Your task to perform on an android device: When is my next meeting? Image 0: 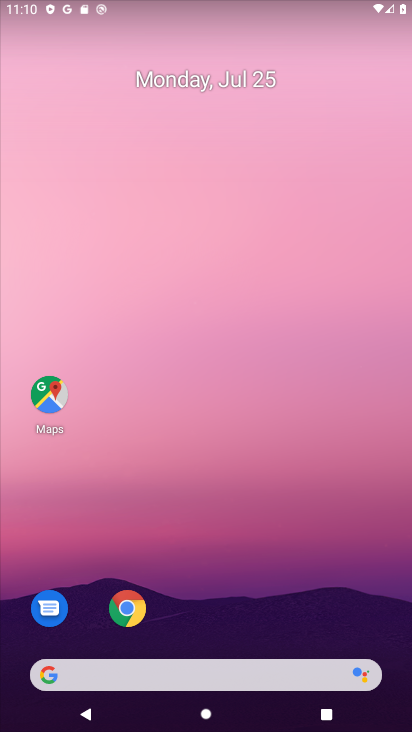
Step 0: click (175, 78)
Your task to perform on an android device: When is my next meeting? Image 1: 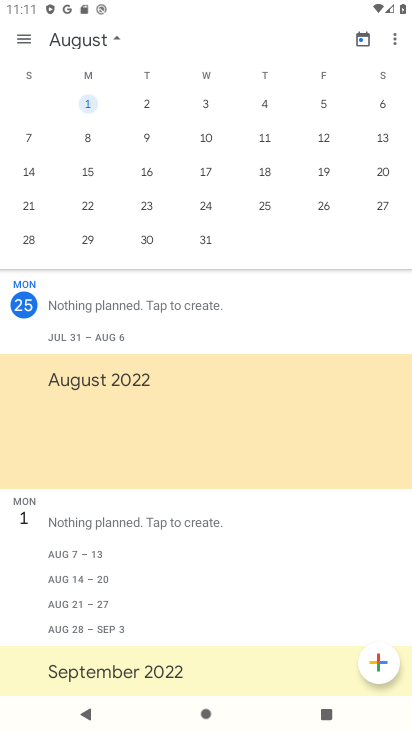
Step 1: task complete